Your task to perform on an android device: check android version Image 0: 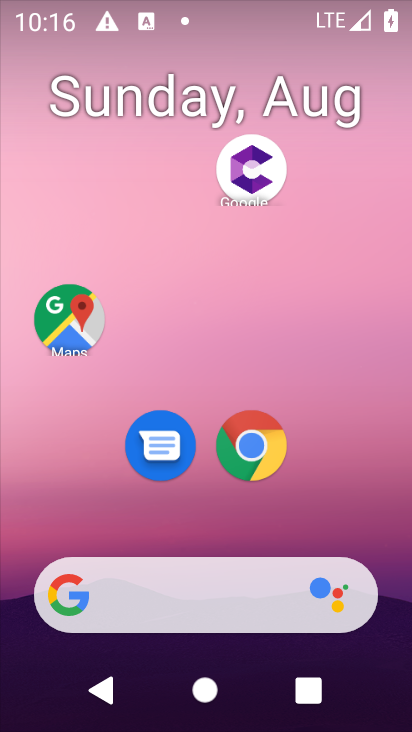
Step 0: press home button
Your task to perform on an android device: check android version Image 1: 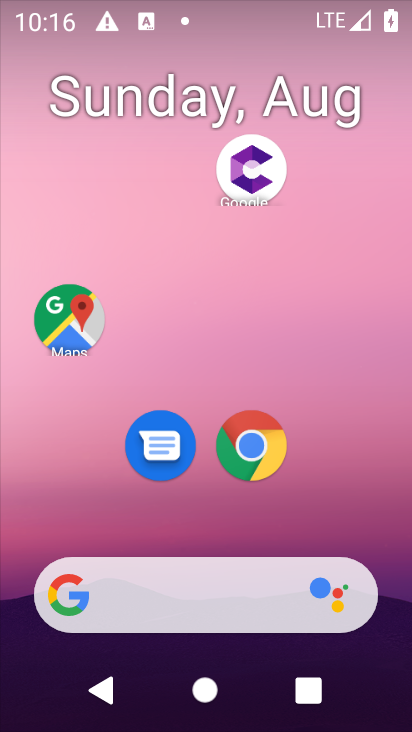
Step 1: drag from (200, 544) to (249, 20)
Your task to perform on an android device: check android version Image 2: 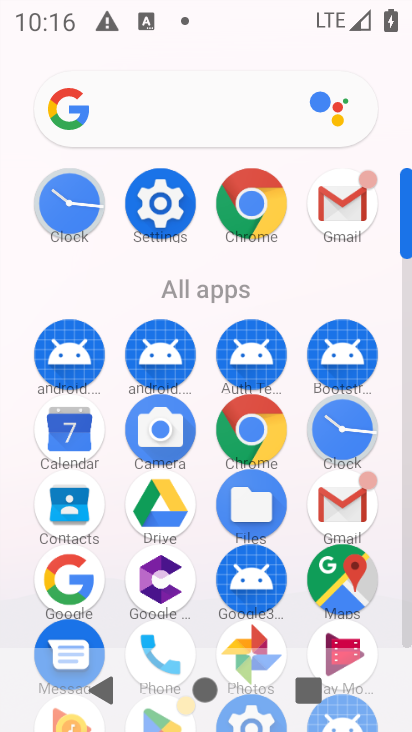
Step 2: click (163, 206)
Your task to perform on an android device: check android version Image 3: 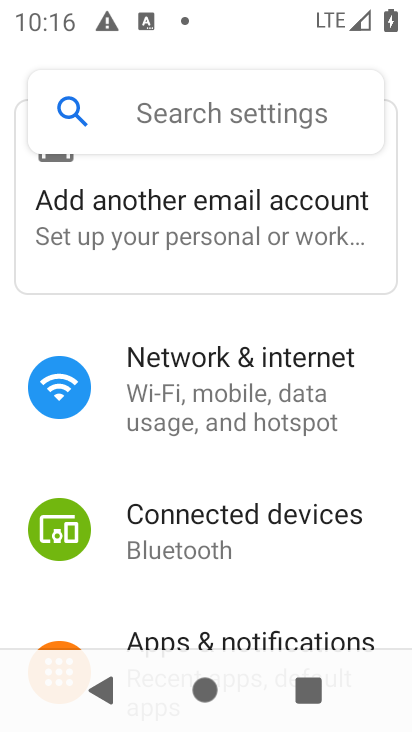
Step 3: drag from (251, 618) to (286, 67)
Your task to perform on an android device: check android version Image 4: 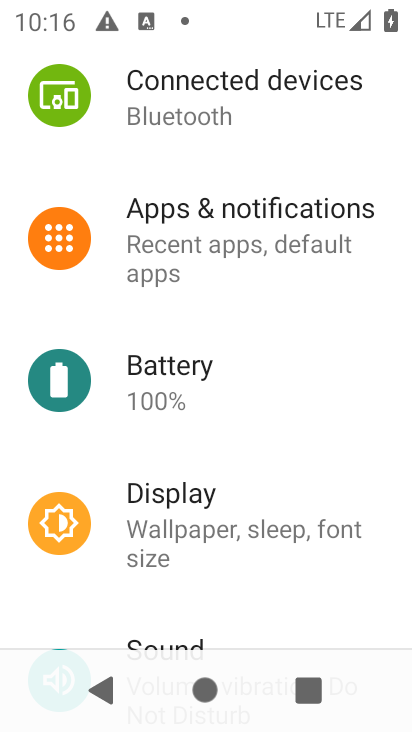
Step 4: drag from (314, 621) to (314, 139)
Your task to perform on an android device: check android version Image 5: 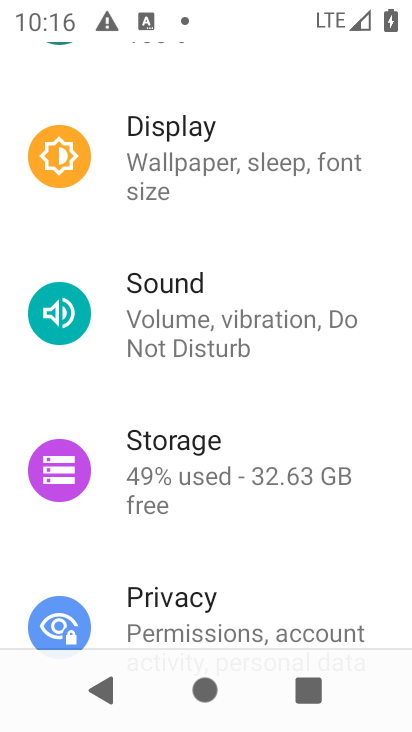
Step 5: drag from (244, 504) to (261, 25)
Your task to perform on an android device: check android version Image 6: 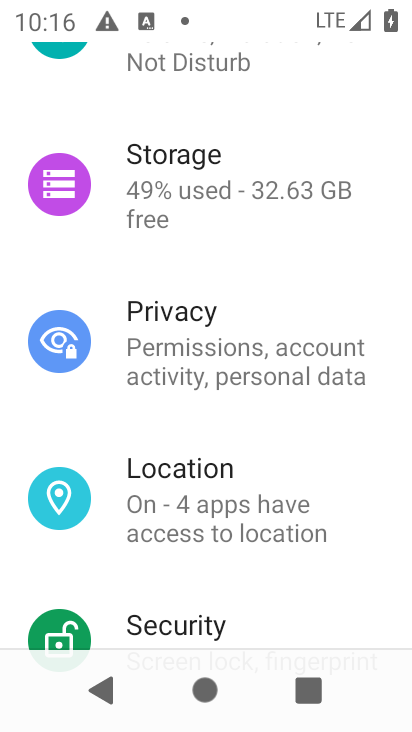
Step 6: drag from (232, 545) to (261, 4)
Your task to perform on an android device: check android version Image 7: 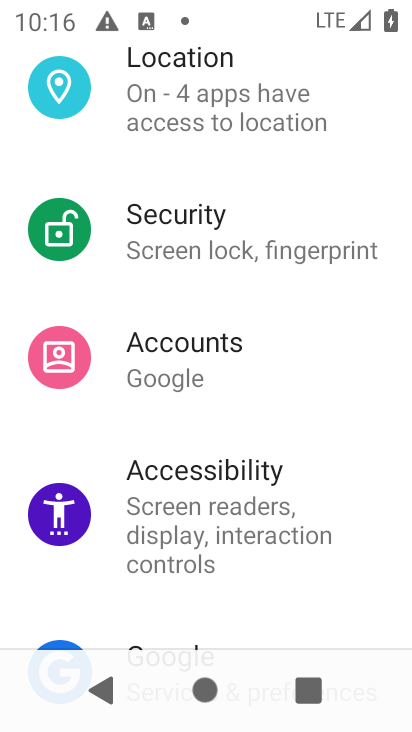
Step 7: drag from (227, 582) to (285, 122)
Your task to perform on an android device: check android version Image 8: 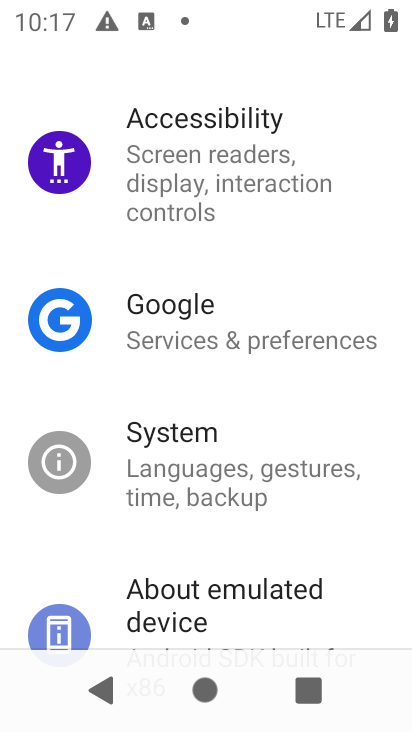
Step 8: click (234, 612)
Your task to perform on an android device: check android version Image 9: 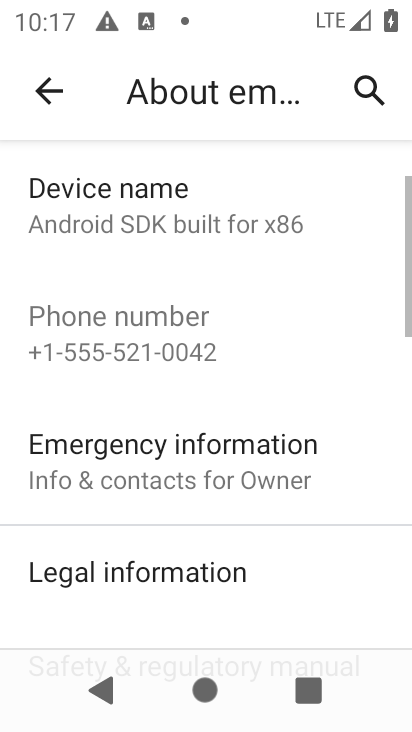
Step 9: drag from (231, 539) to (240, 51)
Your task to perform on an android device: check android version Image 10: 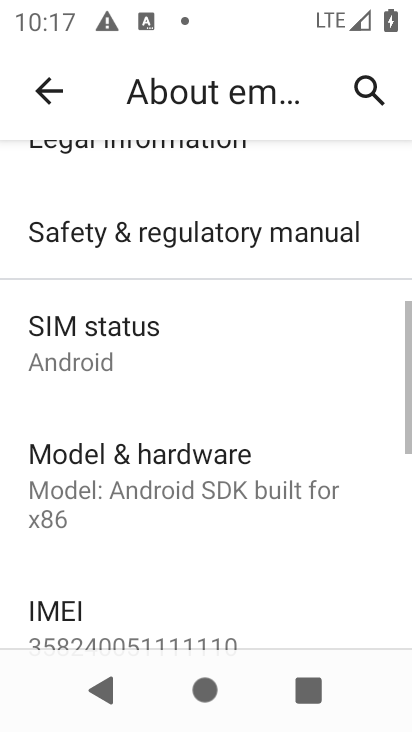
Step 10: drag from (182, 603) to (178, 119)
Your task to perform on an android device: check android version Image 11: 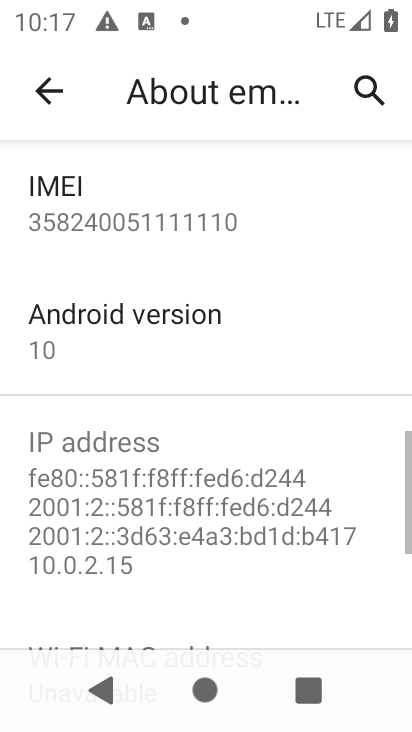
Step 11: click (120, 341)
Your task to perform on an android device: check android version Image 12: 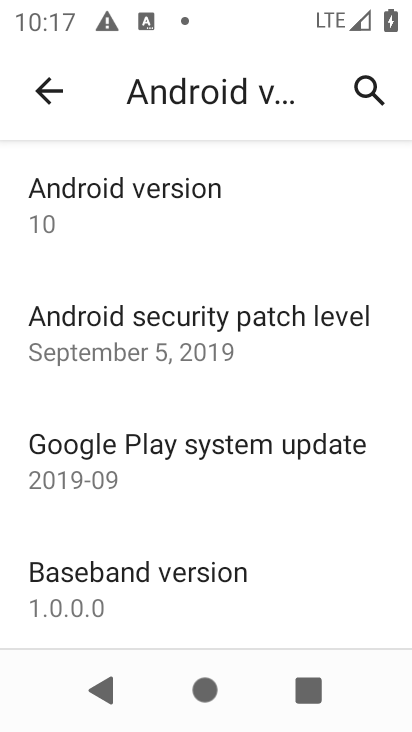
Step 12: task complete